Your task to perform on an android device: toggle wifi Image 0: 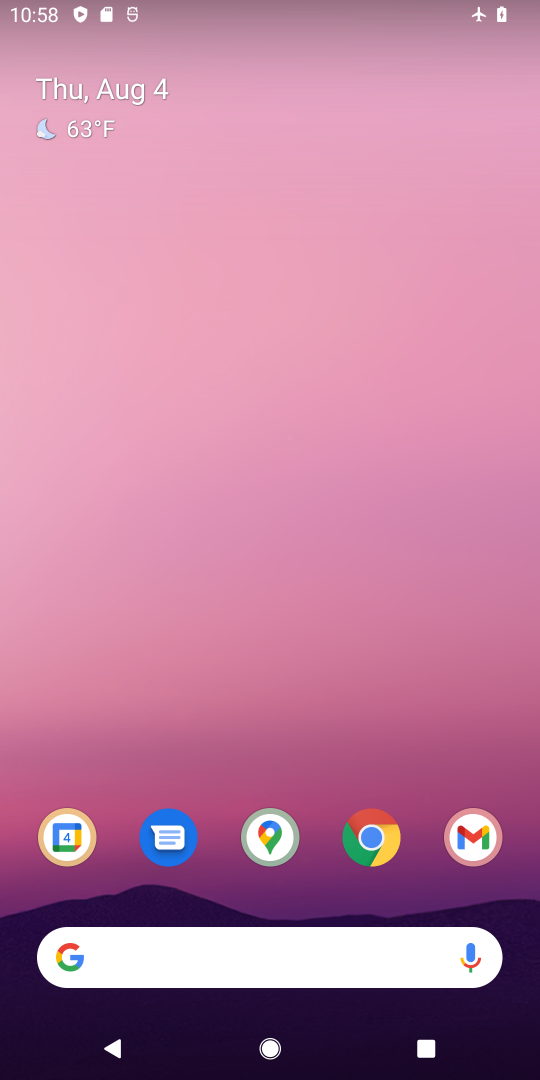
Step 0: drag from (296, 886) to (287, 83)
Your task to perform on an android device: toggle wifi Image 1: 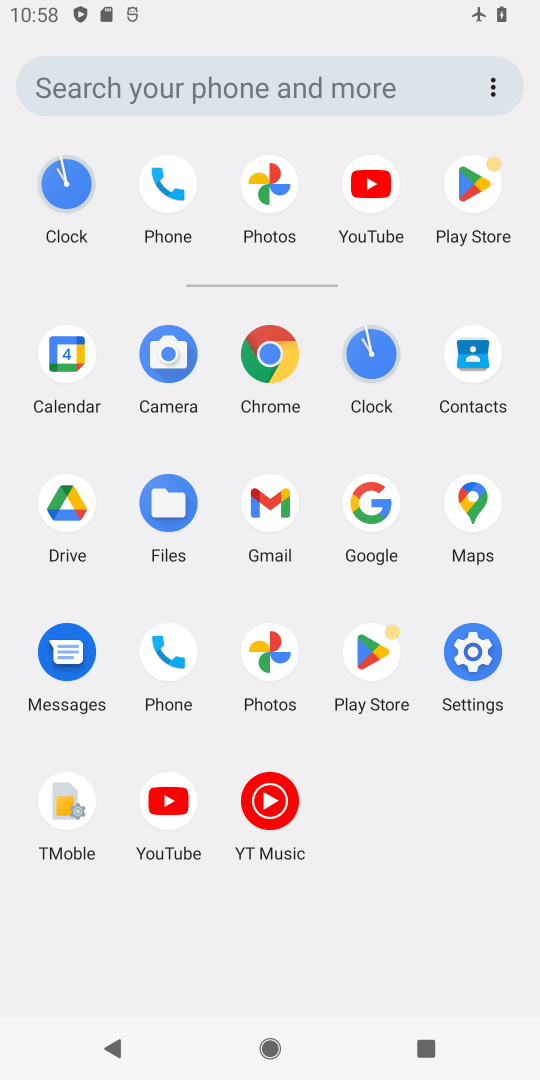
Step 1: click (469, 655)
Your task to perform on an android device: toggle wifi Image 2: 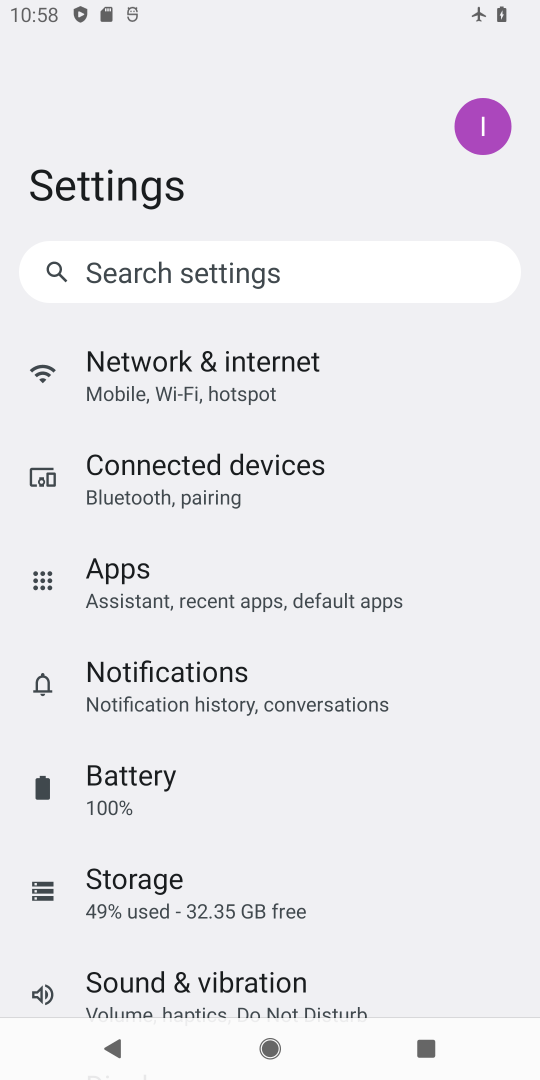
Step 2: click (263, 375)
Your task to perform on an android device: toggle wifi Image 3: 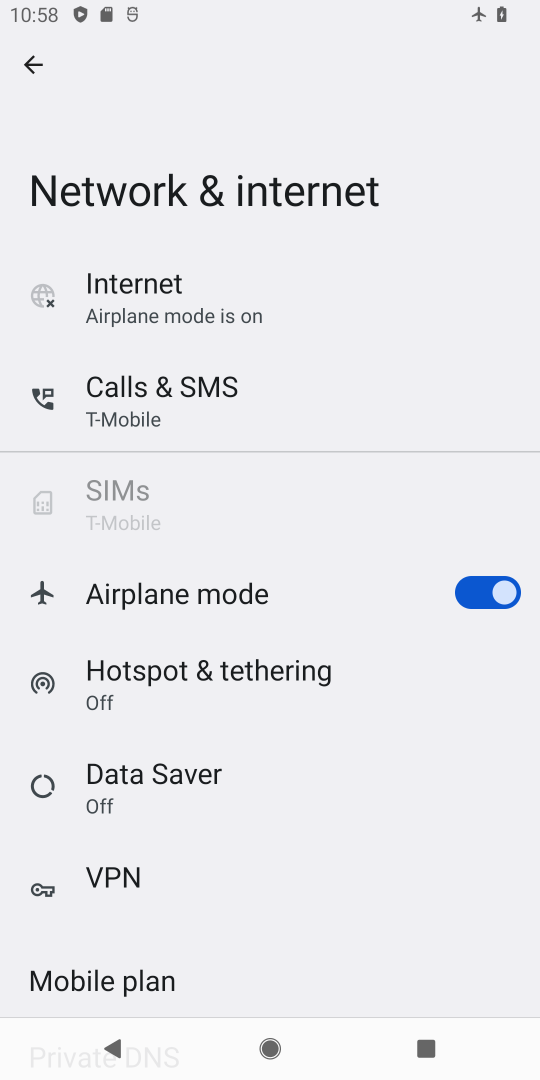
Step 3: click (222, 302)
Your task to perform on an android device: toggle wifi Image 4: 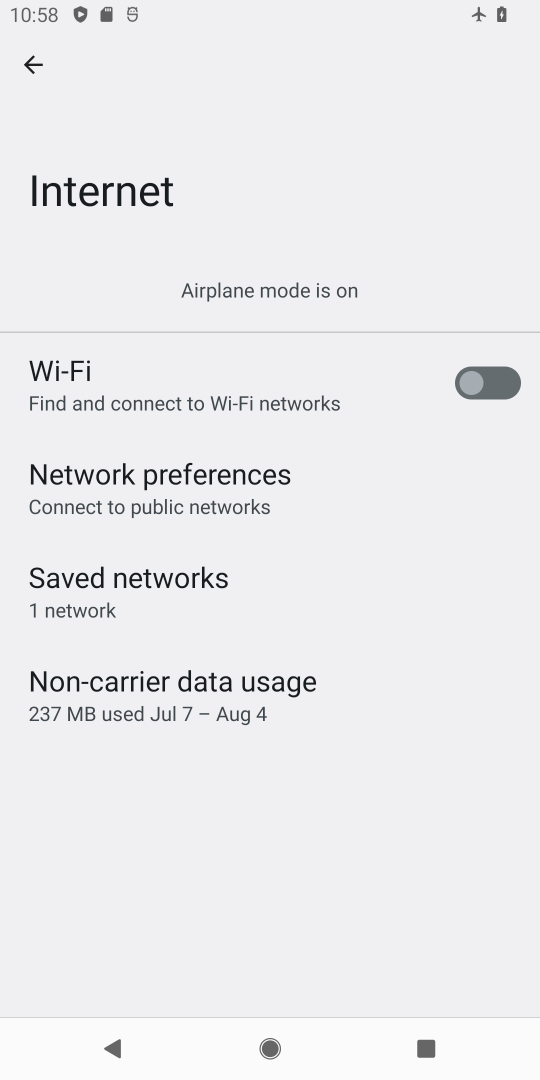
Step 4: click (486, 383)
Your task to perform on an android device: toggle wifi Image 5: 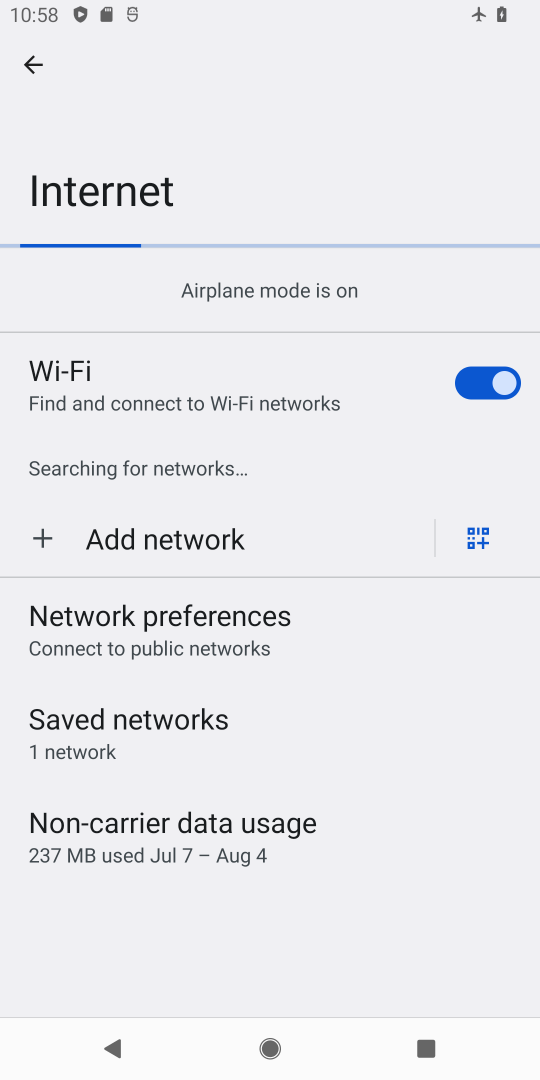
Step 5: task complete